Your task to perform on an android device: empty trash in google photos Image 0: 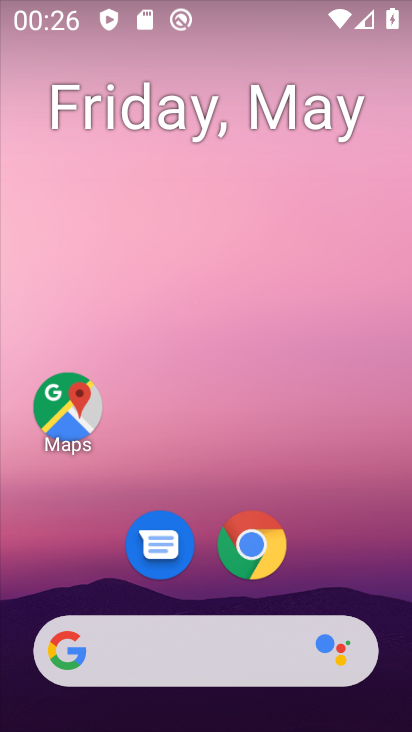
Step 0: drag from (308, 570) to (33, 148)
Your task to perform on an android device: empty trash in google photos Image 1: 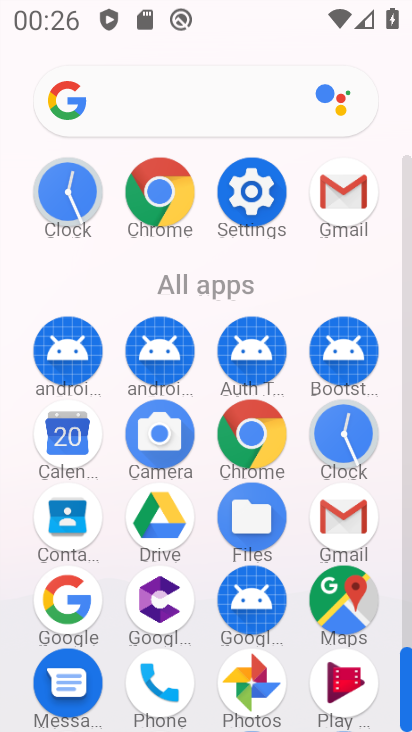
Step 1: click (245, 669)
Your task to perform on an android device: empty trash in google photos Image 2: 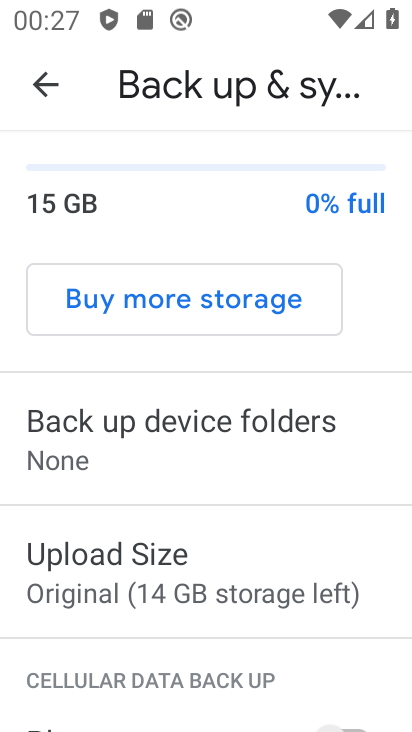
Step 2: click (40, 81)
Your task to perform on an android device: empty trash in google photos Image 3: 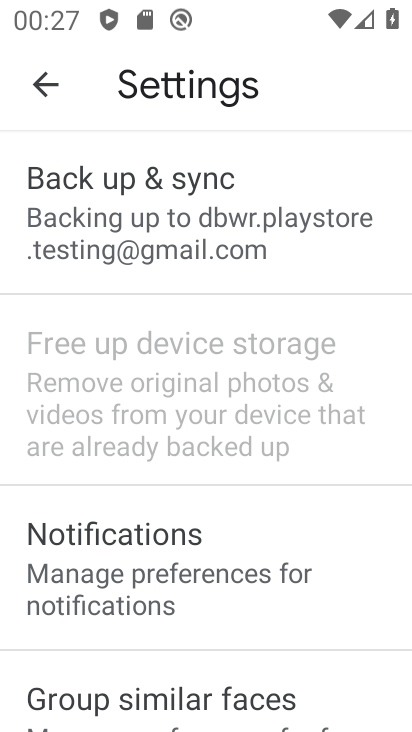
Step 3: click (40, 81)
Your task to perform on an android device: empty trash in google photos Image 4: 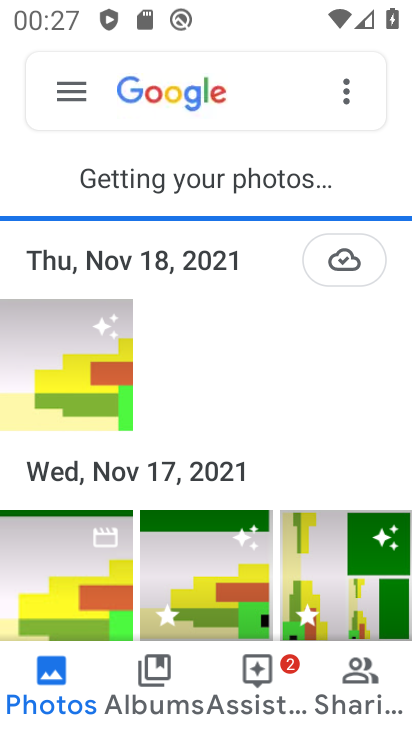
Step 4: click (77, 93)
Your task to perform on an android device: empty trash in google photos Image 5: 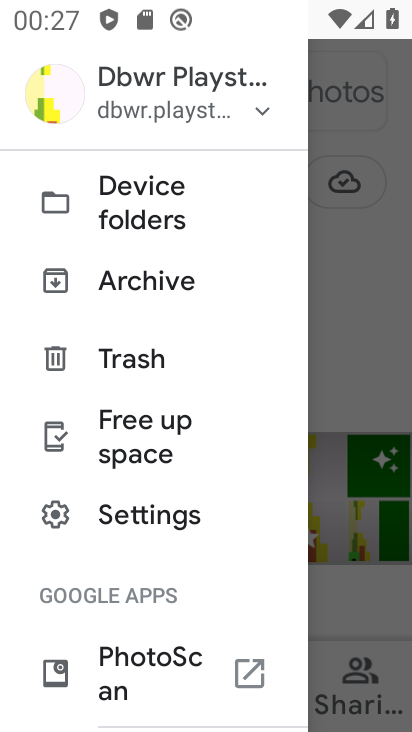
Step 5: click (134, 368)
Your task to perform on an android device: empty trash in google photos Image 6: 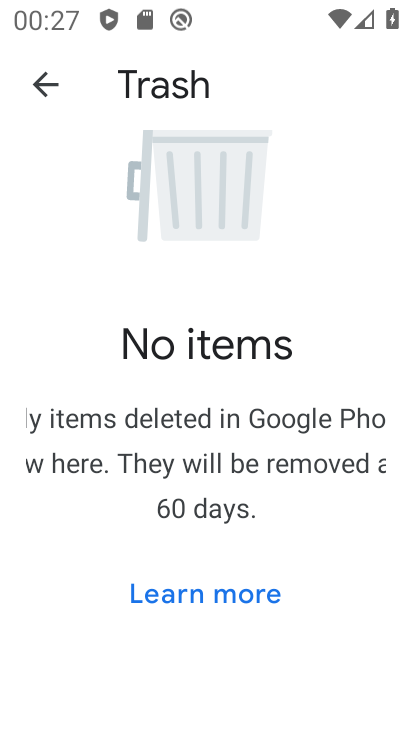
Step 6: task complete